Your task to perform on an android device: choose inbox layout in the gmail app Image 0: 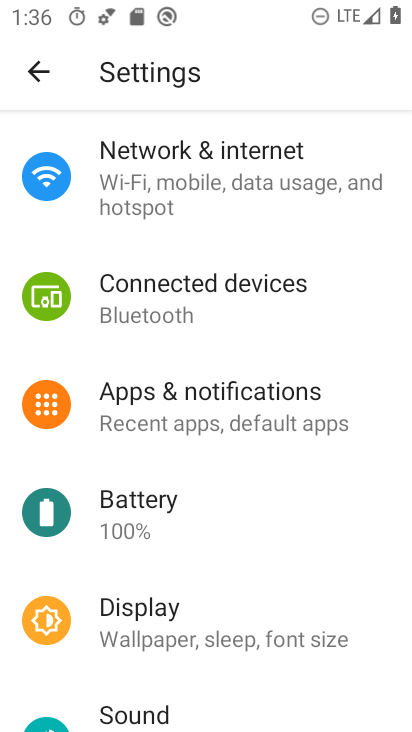
Step 0: press home button
Your task to perform on an android device: choose inbox layout in the gmail app Image 1: 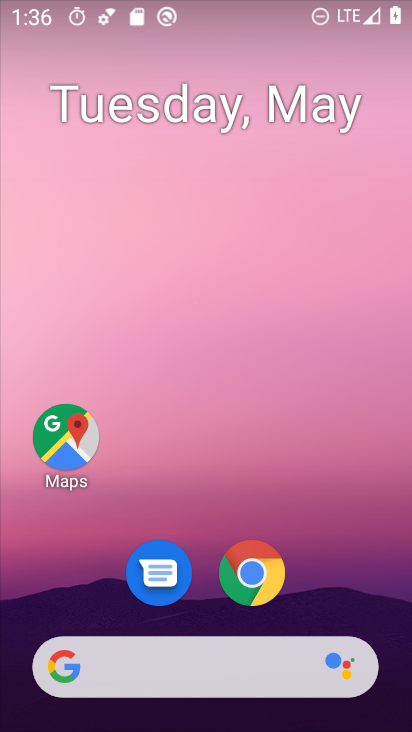
Step 1: drag from (346, 463) to (305, 113)
Your task to perform on an android device: choose inbox layout in the gmail app Image 2: 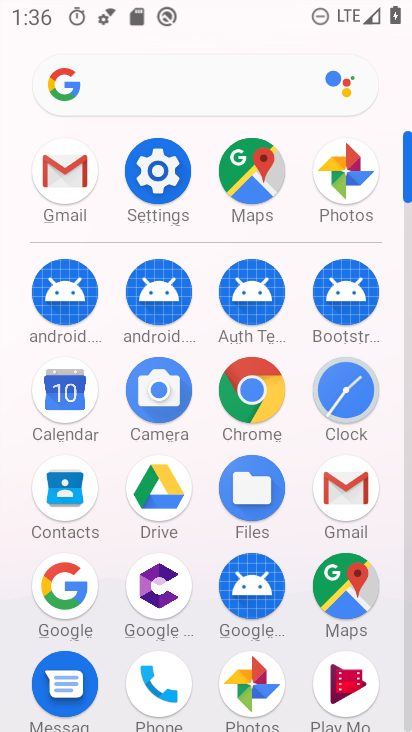
Step 2: click (70, 168)
Your task to perform on an android device: choose inbox layout in the gmail app Image 3: 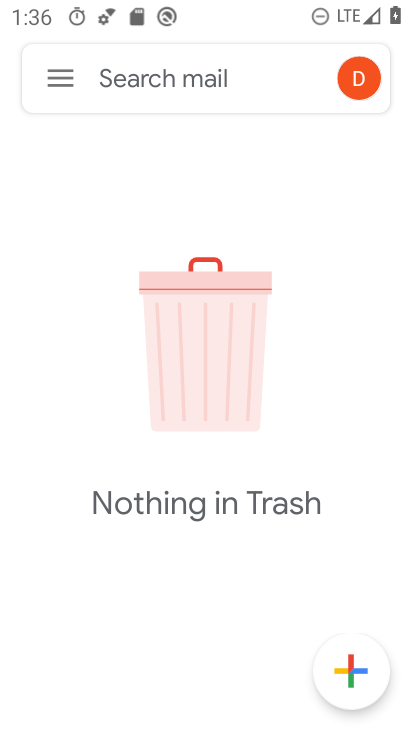
Step 3: click (59, 70)
Your task to perform on an android device: choose inbox layout in the gmail app Image 4: 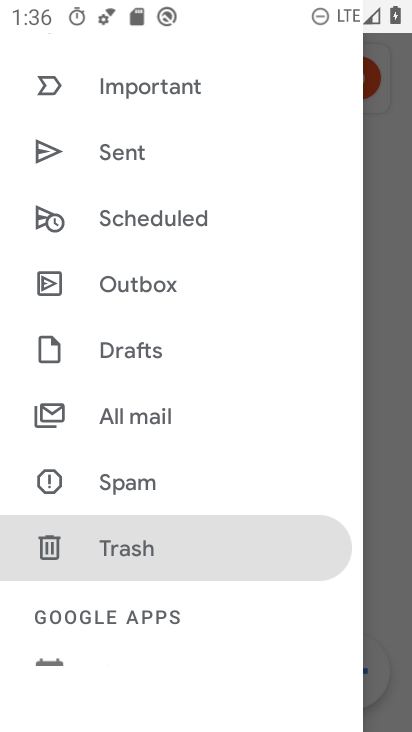
Step 4: drag from (167, 609) to (143, 183)
Your task to perform on an android device: choose inbox layout in the gmail app Image 5: 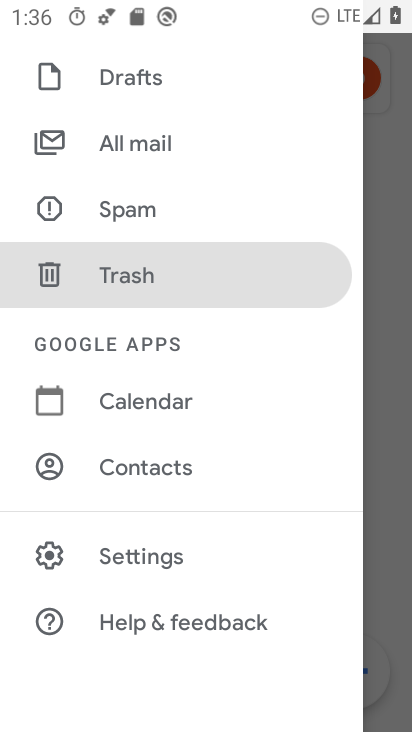
Step 5: click (168, 556)
Your task to perform on an android device: choose inbox layout in the gmail app Image 6: 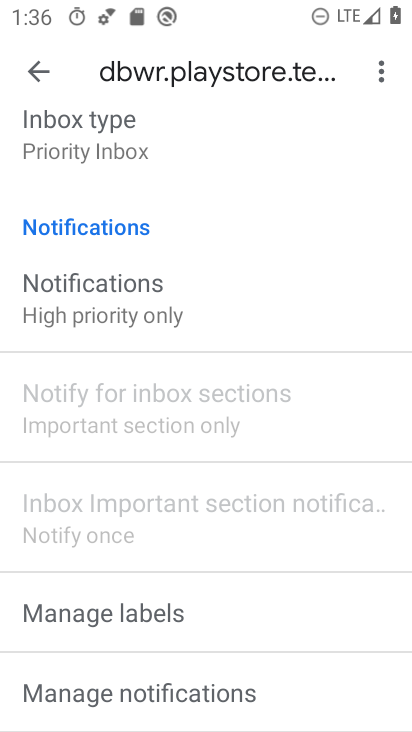
Step 6: click (124, 148)
Your task to perform on an android device: choose inbox layout in the gmail app Image 7: 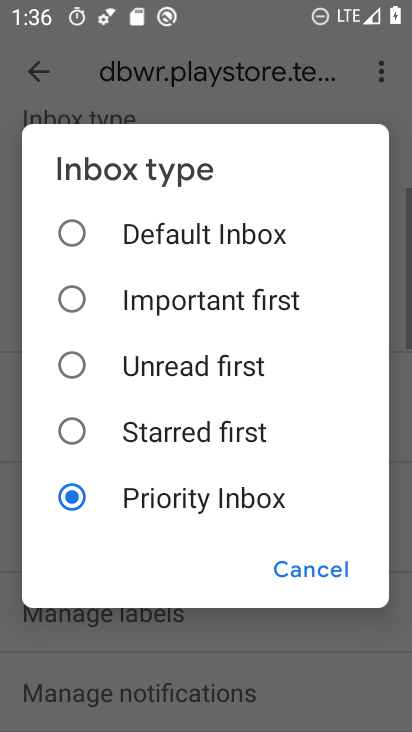
Step 7: click (142, 231)
Your task to perform on an android device: choose inbox layout in the gmail app Image 8: 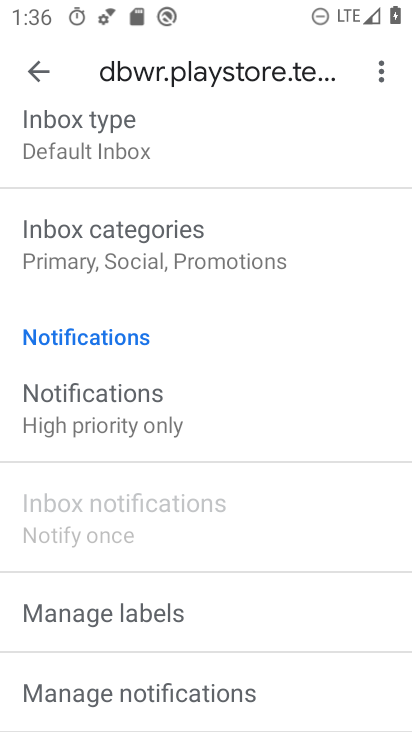
Step 8: task complete